Your task to perform on an android device: Go to eBay Image 0: 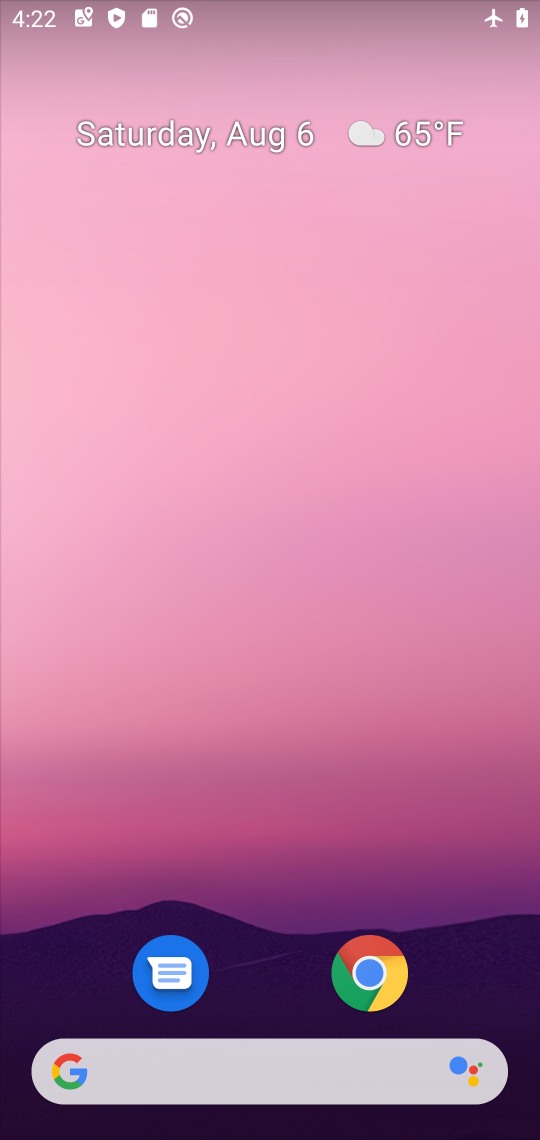
Step 0: drag from (235, 991) to (281, 232)
Your task to perform on an android device: Go to eBay Image 1: 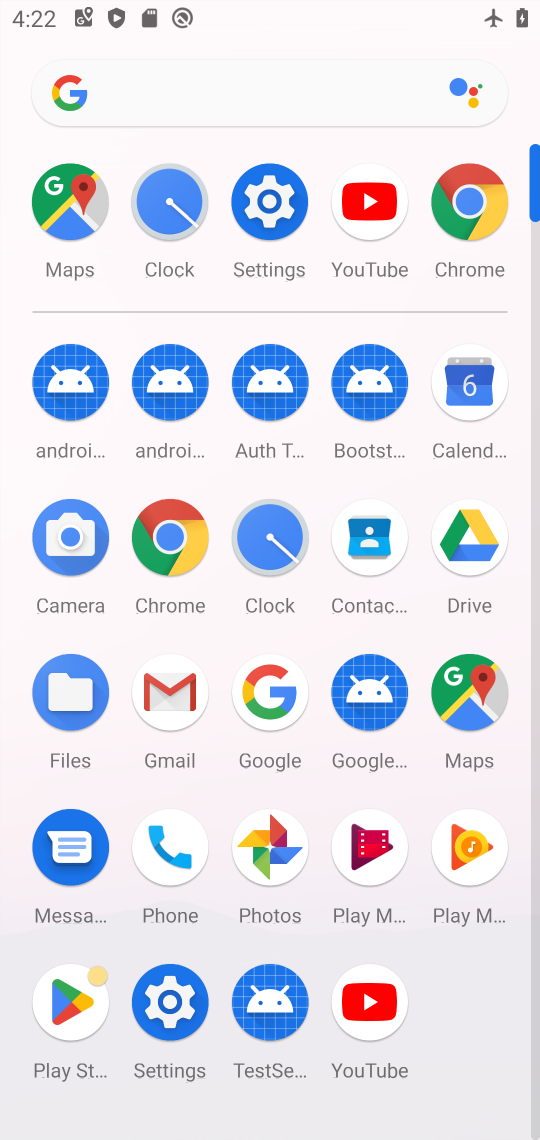
Step 1: click (177, 541)
Your task to perform on an android device: Go to eBay Image 2: 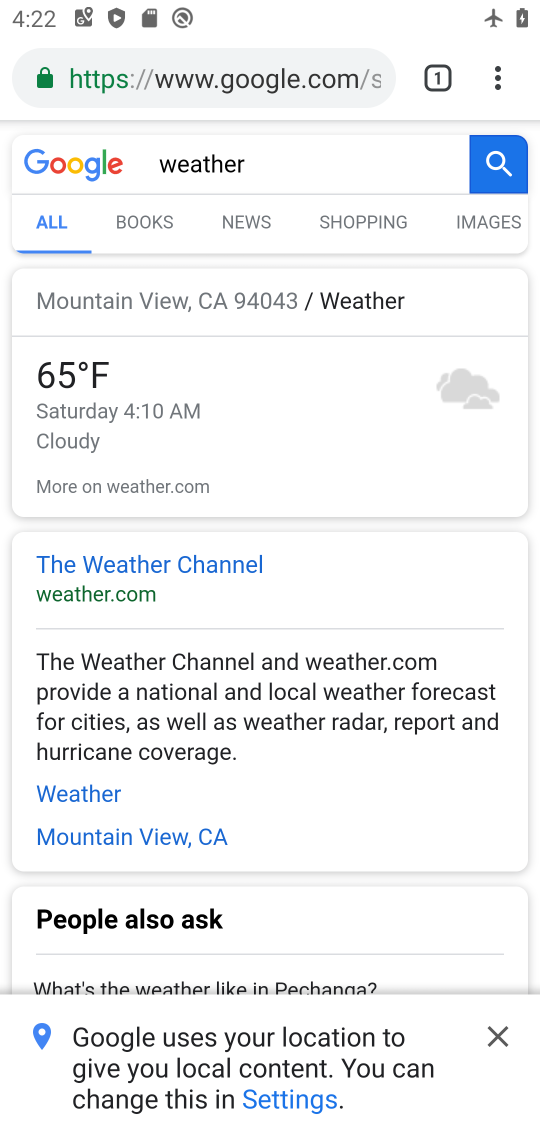
Step 2: click (249, 68)
Your task to perform on an android device: Go to eBay Image 3: 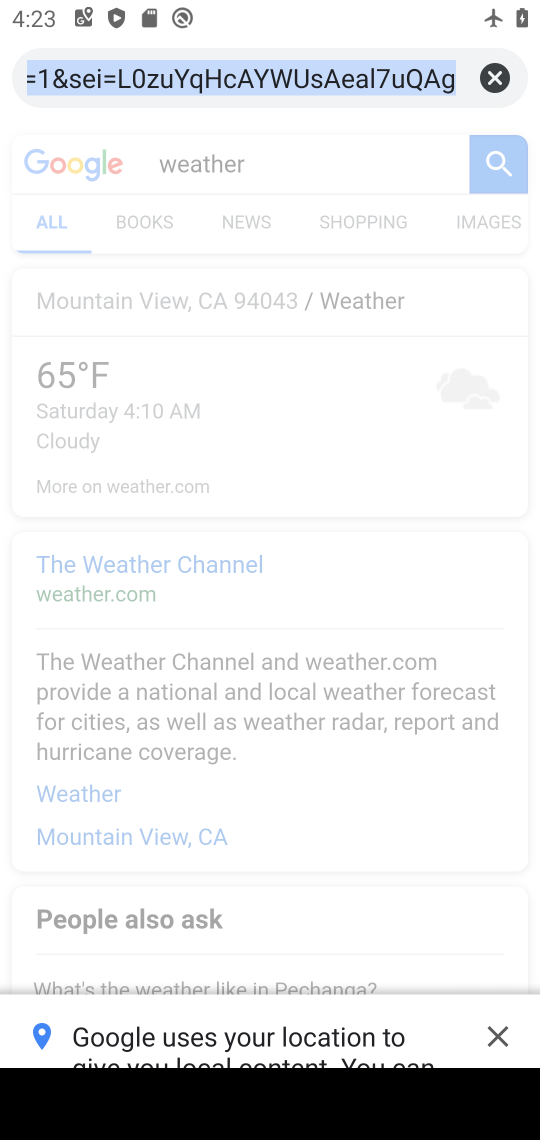
Step 3: type "ebay"
Your task to perform on an android device: Go to eBay Image 4: 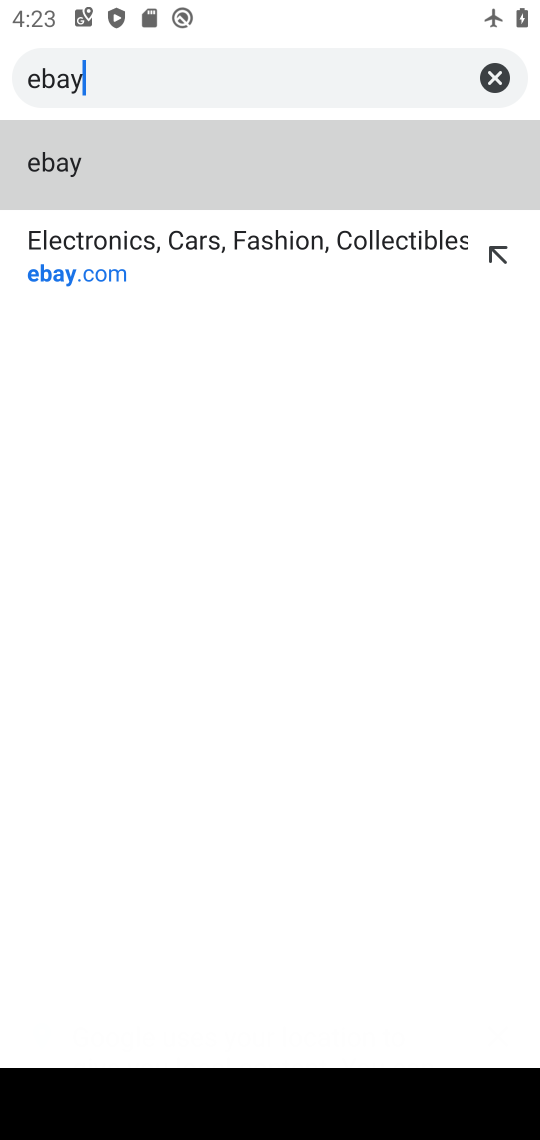
Step 4: click (115, 261)
Your task to perform on an android device: Go to eBay Image 5: 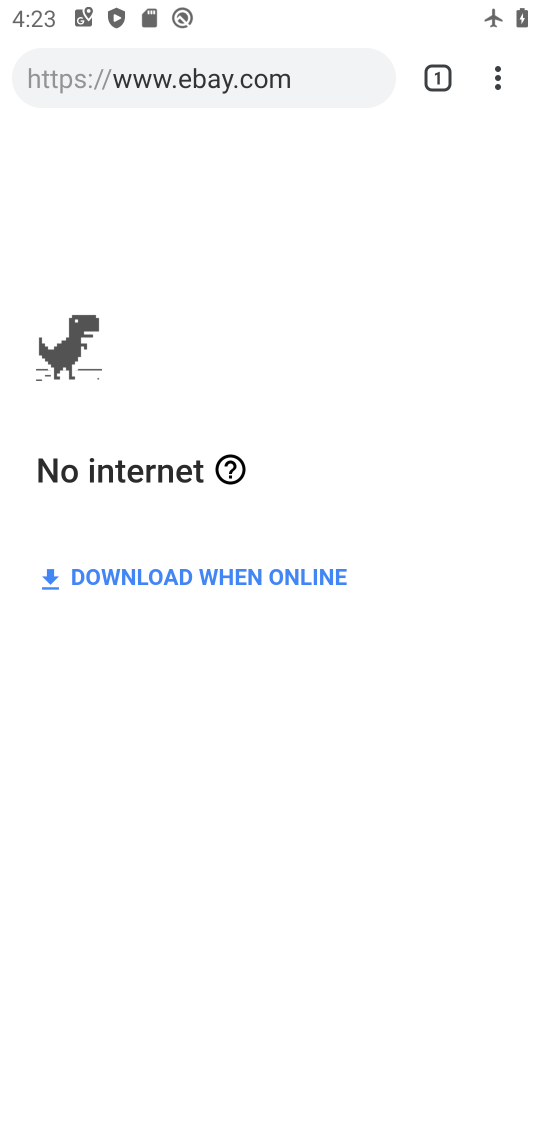
Step 5: task complete